Your task to perform on an android device: turn off smart reply in the gmail app Image 0: 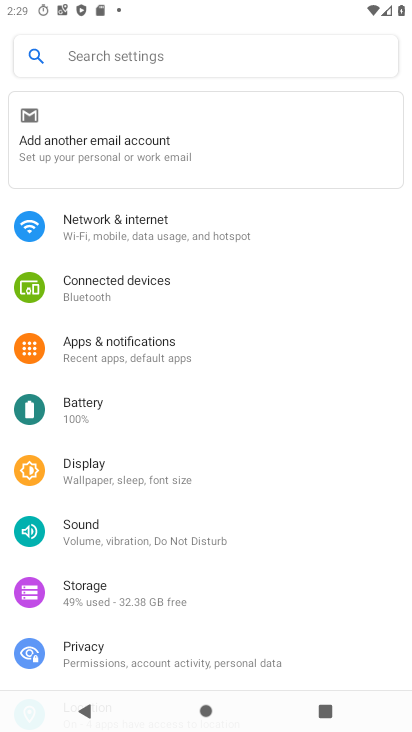
Step 0: press home button
Your task to perform on an android device: turn off smart reply in the gmail app Image 1: 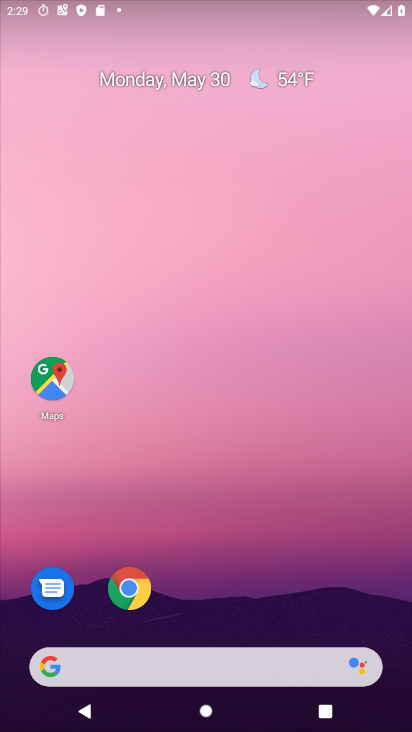
Step 1: drag from (227, 602) to (231, 97)
Your task to perform on an android device: turn off smart reply in the gmail app Image 2: 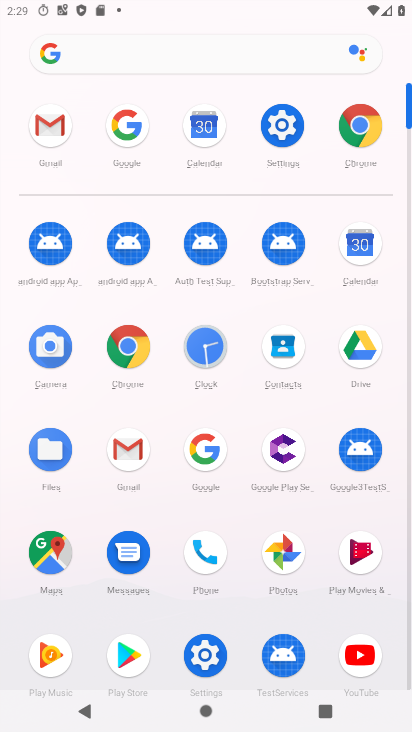
Step 2: click (51, 126)
Your task to perform on an android device: turn off smart reply in the gmail app Image 3: 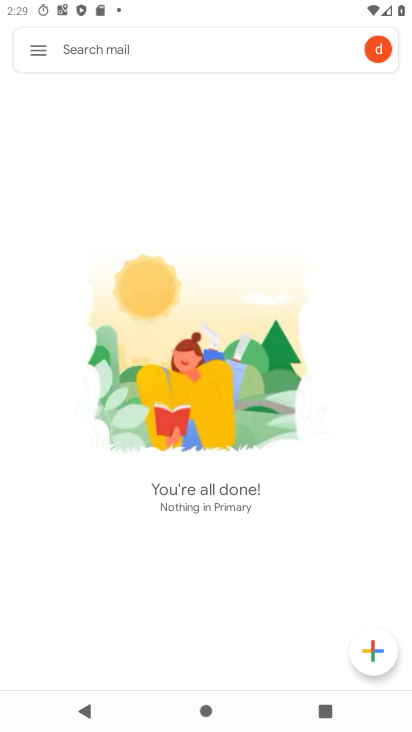
Step 3: click (39, 54)
Your task to perform on an android device: turn off smart reply in the gmail app Image 4: 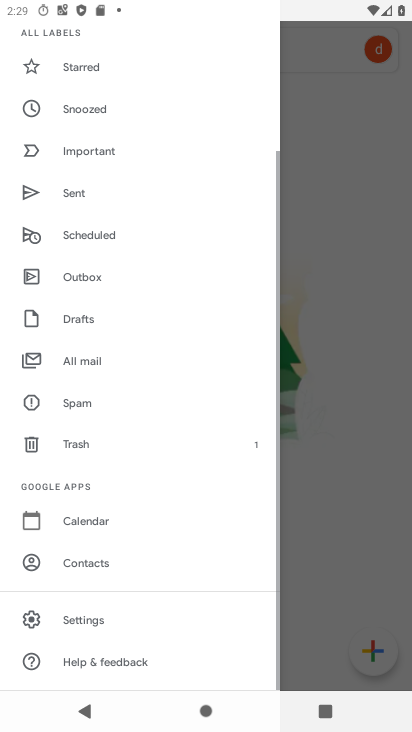
Step 4: click (86, 622)
Your task to perform on an android device: turn off smart reply in the gmail app Image 5: 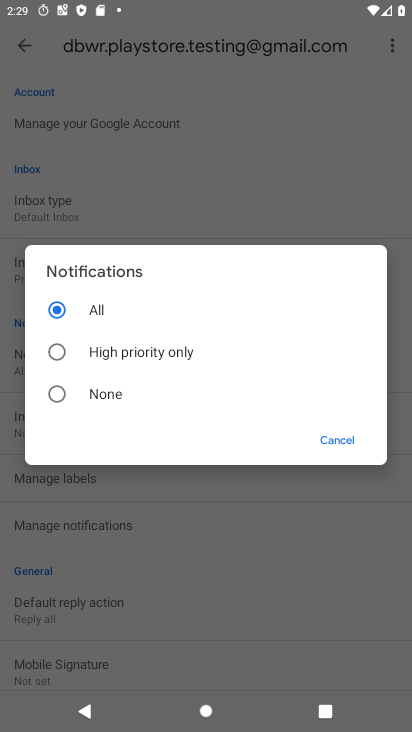
Step 5: click (332, 443)
Your task to perform on an android device: turn off smart reply in the gmail app Image 6: 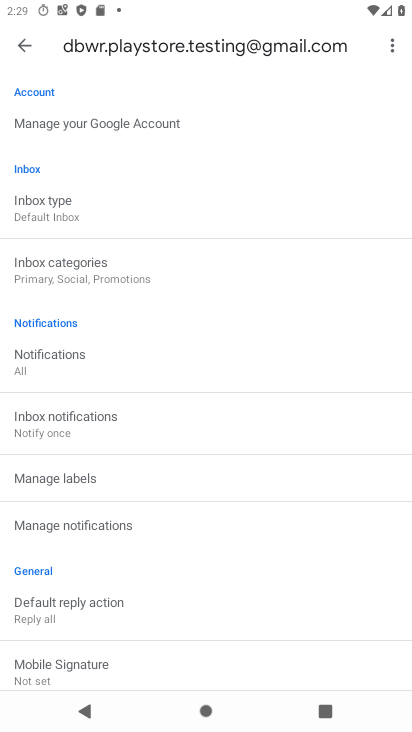
Step 6: drag from (133, 544) to (130, 212)
Your task to perform on an android device: turn off smart reply in the gmail app Image 7: 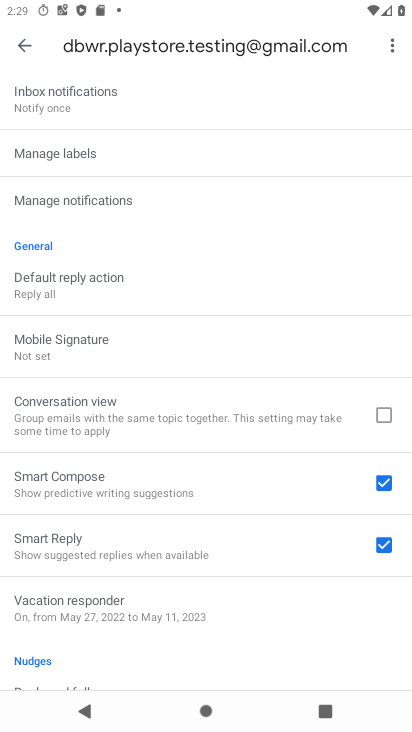
Step 7: click (385, 541)
Your task to perform on an android device: turn off smart reply in the gmail app Image 8: 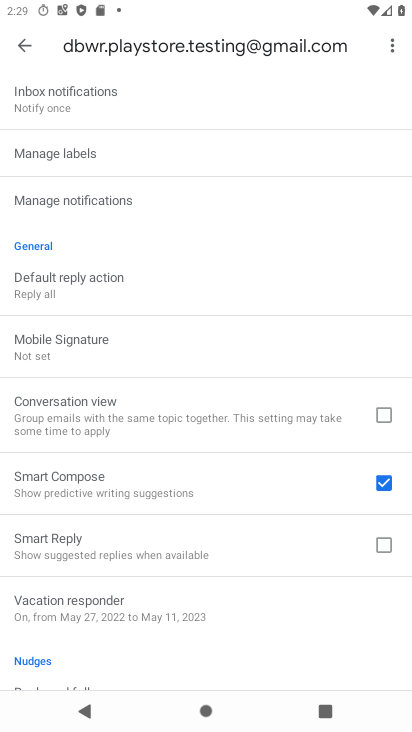
Step 8: task complete